Your task to perform on an android device: Play the last video I watched on Youtube Image 0: 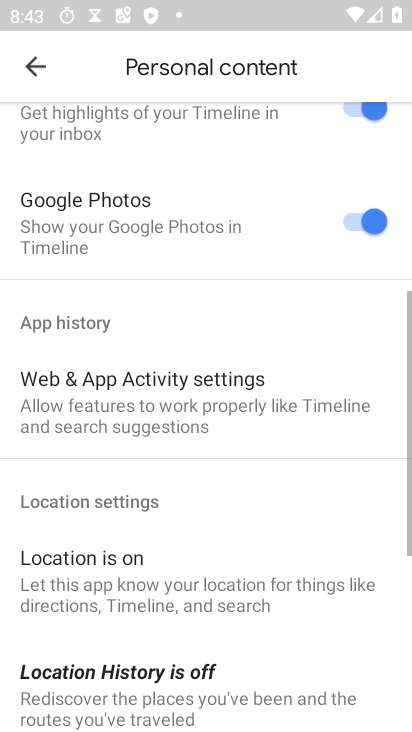
Step 0: press home button
Your task to perform on an android device: Play the last video I watched on Youtube Image 1: 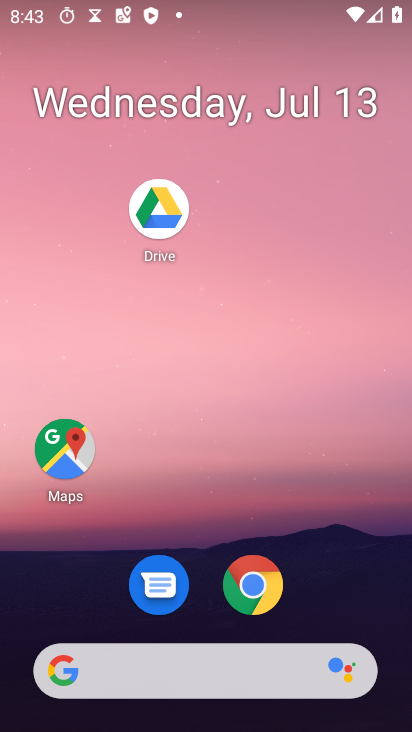
Step 1: drag from (211, 661) to (331, 227)
Your task to perform on an android device: Play the last video I watched on Youtube Image 2: 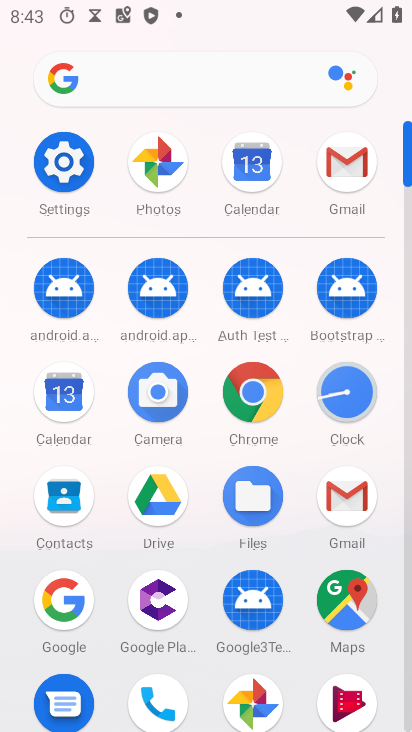
Step 2: drag from (305, 657) to (322, 108)
Your task to perform on an android device: Play the last video I watched on Youtube Image 3: 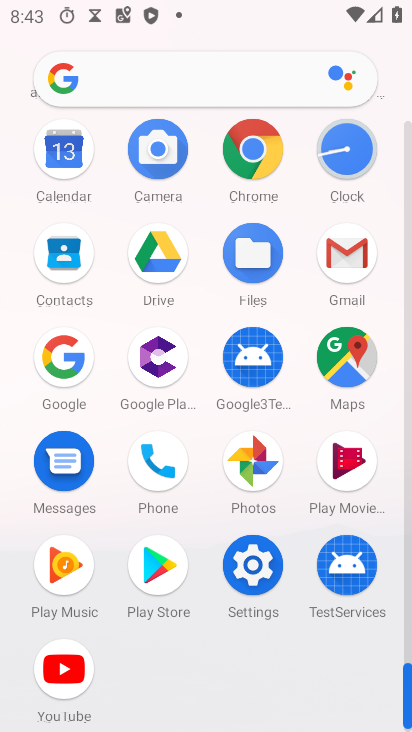
Step 3: click (45, 664)
Your task to perform on an android device: Play the last video I watched on Youtube Image 4: 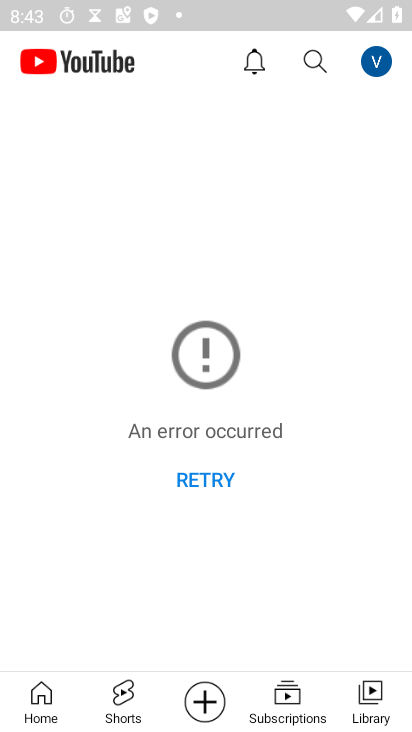
Step 4: click (196, 481)
Your task to perform on an android device: Play the last video I watched on Youtube Image 5: 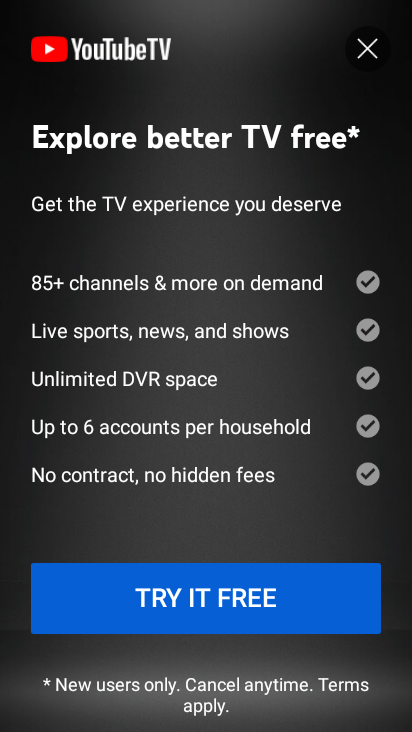
Step 5: click (265, 504)
Your task to perform on an android device: Play the last video I watched on Youtube Image 6: 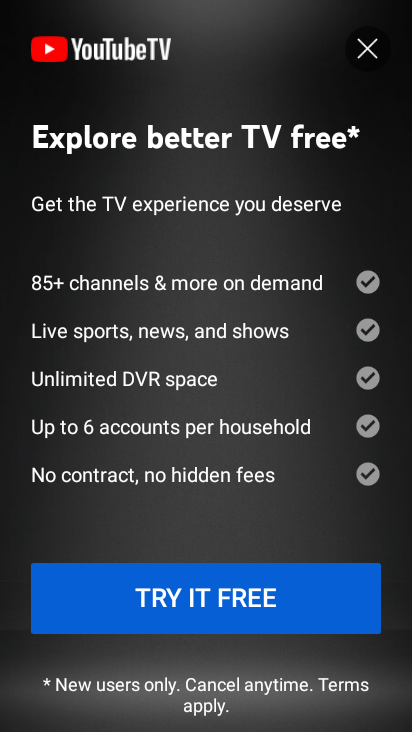
Step 6: click (373, 40)
Your task to perform on an android device: Play the last video I watched on Youtube Image 7: 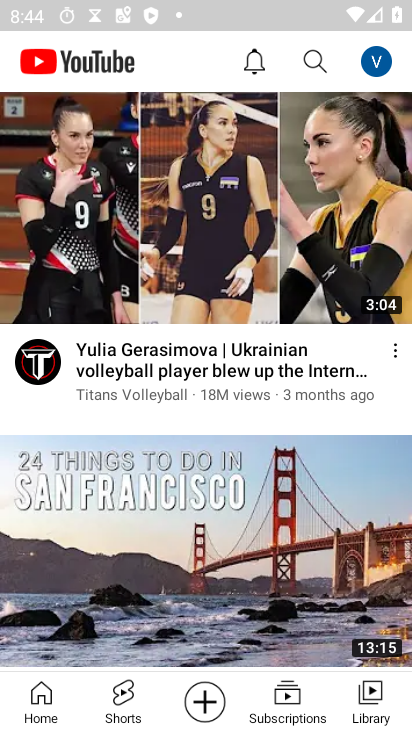
Step 7: click (383, 708)
Your task to perform on an android device: Play the last video I watched on Youtube Image 8: 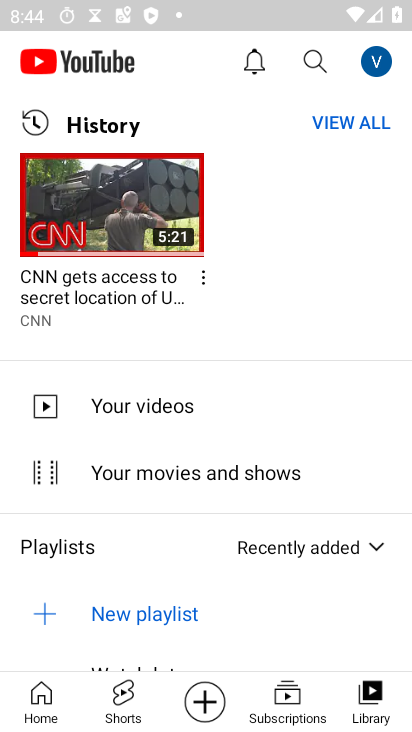
Step 8: click (128, 206)
Your task to perform on an android device: Play the last video I watched on Youtube Image 9: 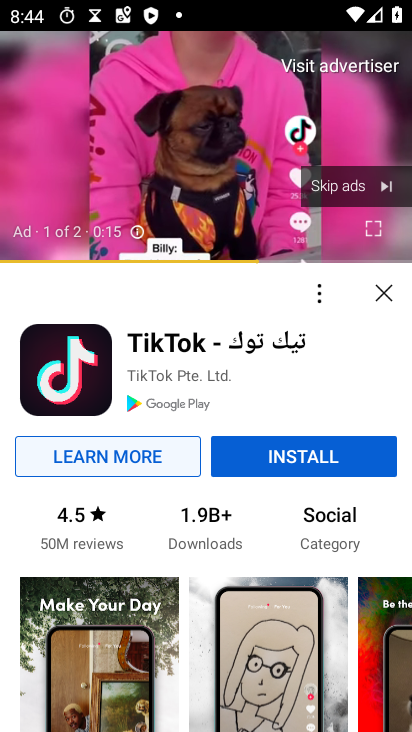
Step 9: click (203, 144)
Your task to perform on an android device: Play the last video I watched on Youtube Image 10: 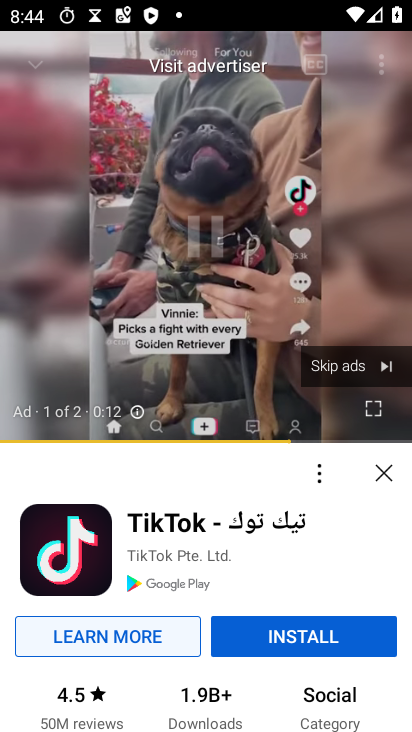
Step 10: click (331, 365)
Your task to perform on an android device: Play the last video I watched on Youtube Image 11: 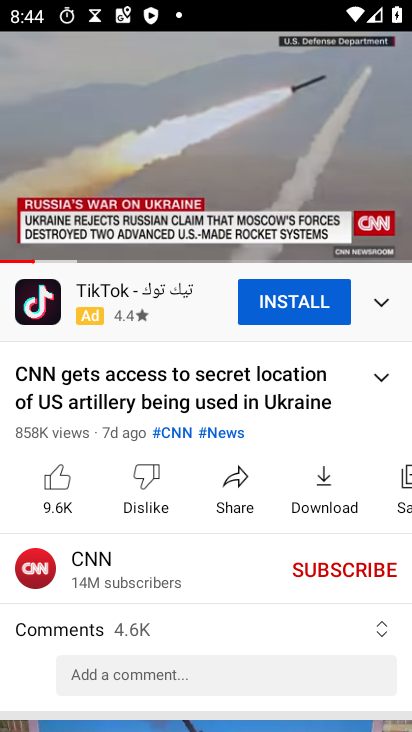
Step 11: click (216, 157)
Your task to perform on an android device: Play the last video I watched on Youtube Image 12: 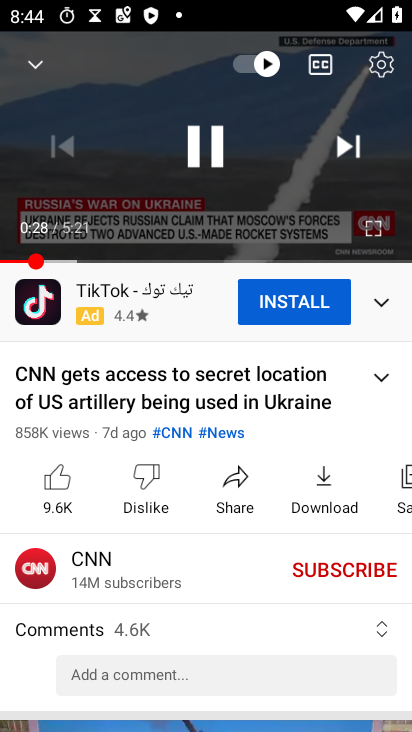
Step 12: click (216, 157)
Your task to perform on an android device: Play the last video I watched on Youtube Image 13: 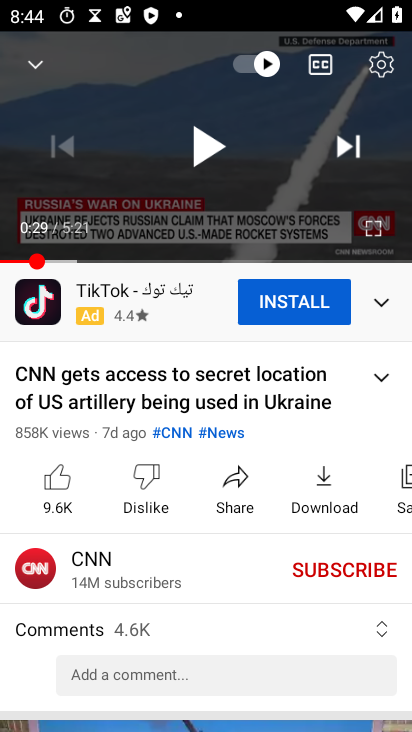
Step 13: task complete